Your task to perform on an android device: turn off data saver in the chrome app Image 0: 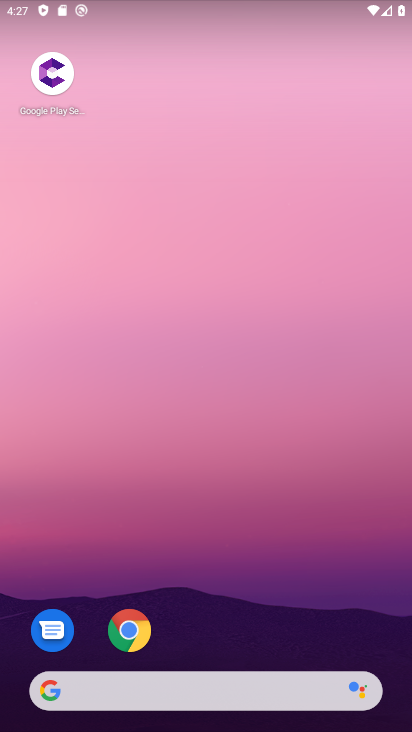
Step 0: drag from (288, 574) to (270, 204)
Your task to perform on an android device: turn off data saver in the chrome app Image 1: 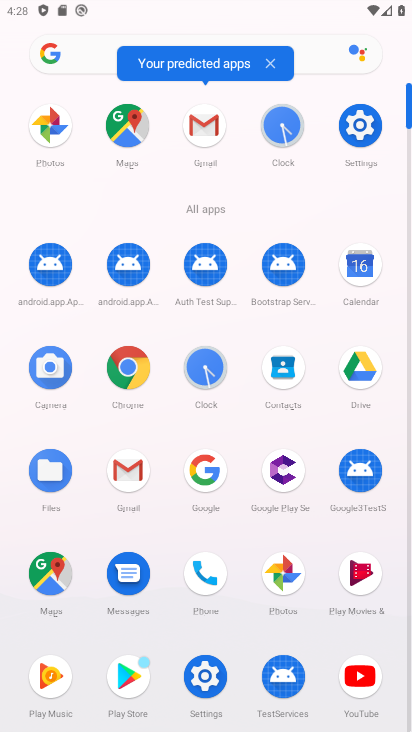
Step 1: click (128, 382)
Your task to perform on an android device: turn off data saver in the chrome app Image 2: 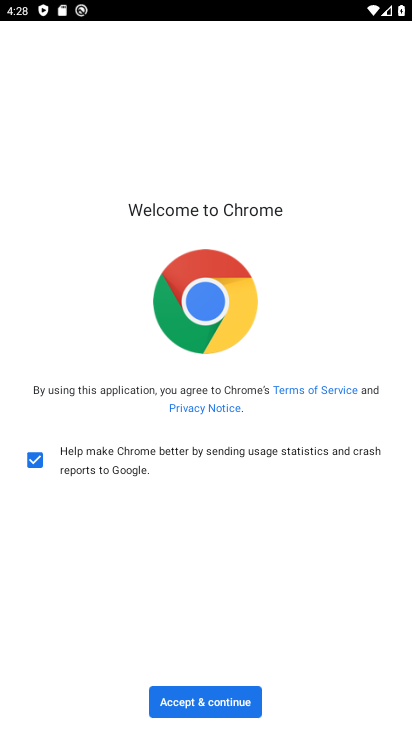
Step 2: click (203, 691)
Your task to perform on an android device: turn off data saver in the chrome app Image 3: 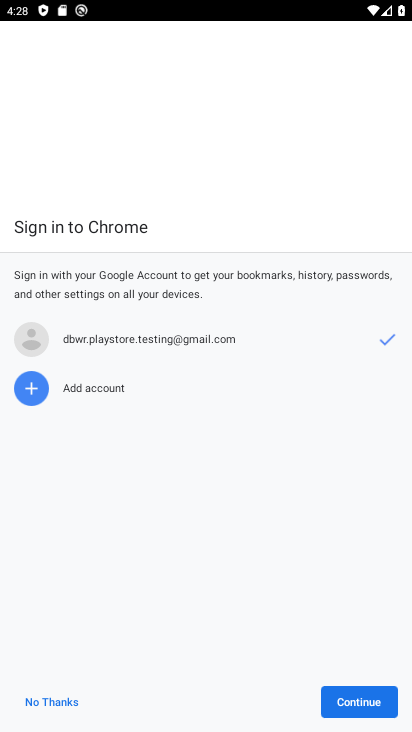
Step 3: click (367, 699)
Your task to perform on an android device: turn off data saver in the chrome app Image 4: 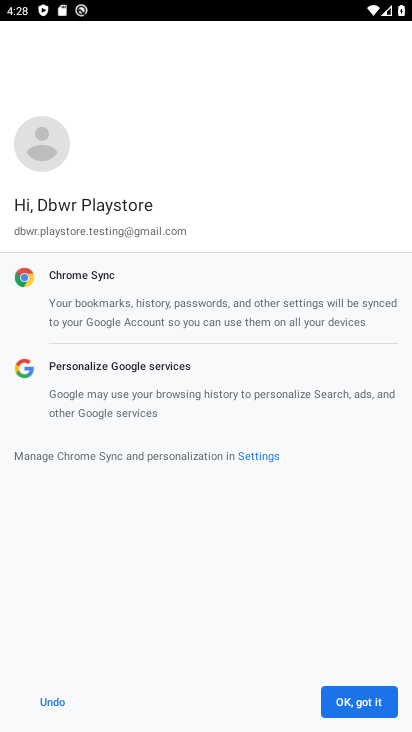
Step 4: click (367, 699)
Your task to perform on an android device: turn off data saver in the chrome app Image 5: 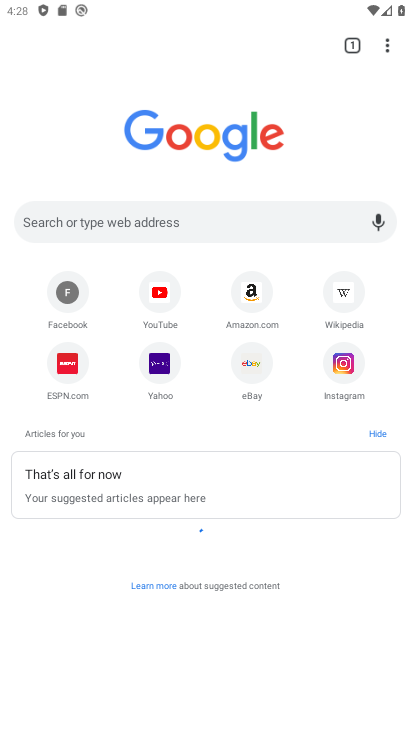
Step 5: click (367, 699)
Your task to perform on an android device: turn off data saver in the chrome app Image 6: 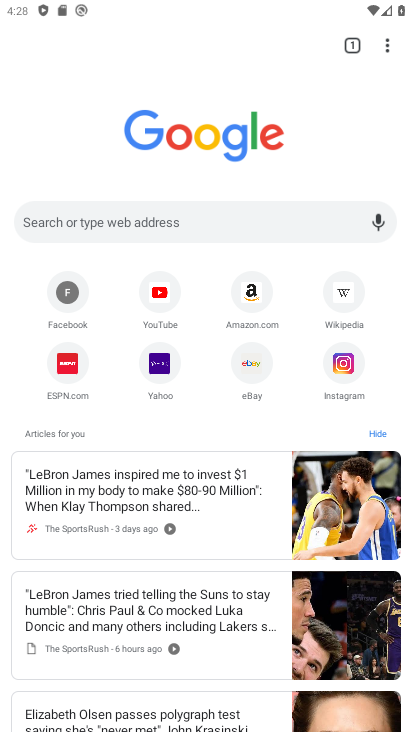
Step 6: drag from (387, 49) to (233, 382)
Your task to perform on an android device: turn off data saver in the chrome app Image 7: 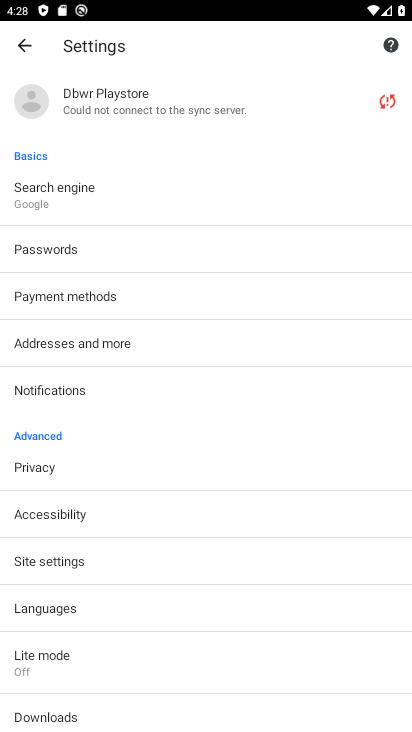
Step 7: click (63, 669)
Your task to perform on an android device: turn off data saver in the chrome app Image 8: 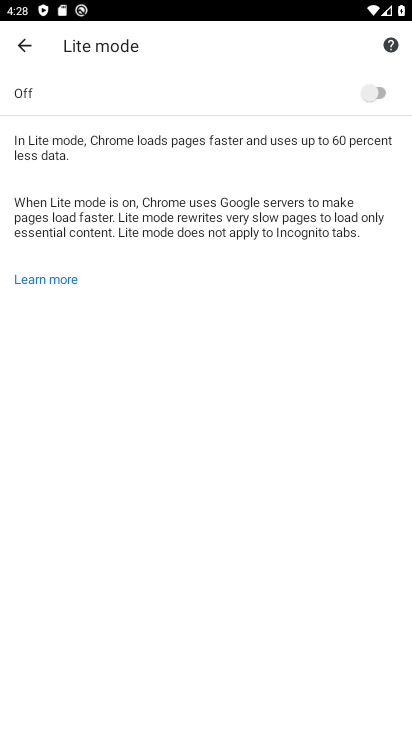
Step 8: task complete